Your task to perform on an android device: set the stopwatch Image 0: 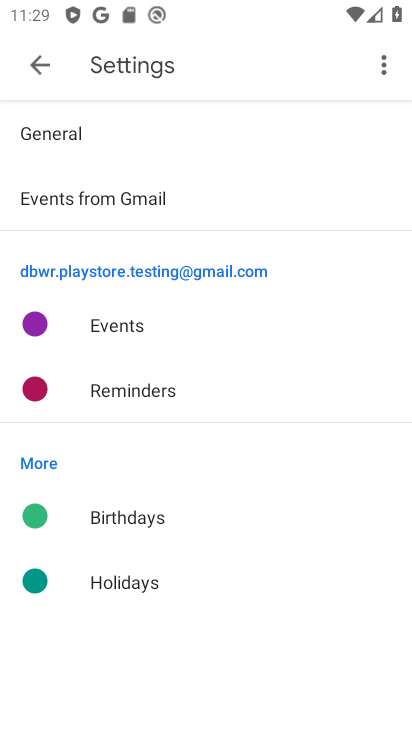
Step 0: press back button
Your task to perform on an android device: set the stopwatch Image 1: 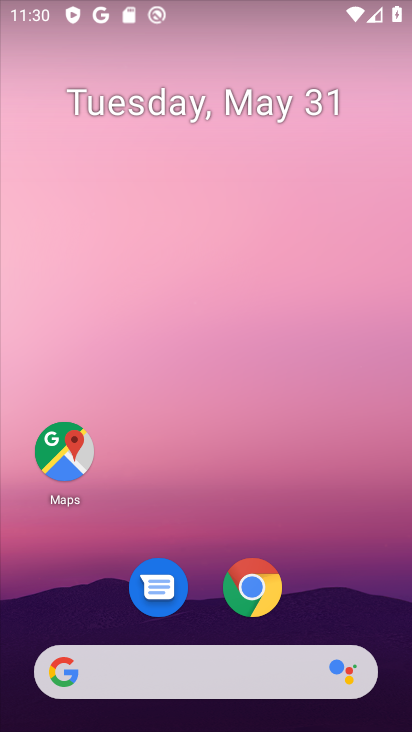
Step 1: drag from (341, 592) to (195, 191)
Your task to perform on an android device: set the stopwatch Image 2: 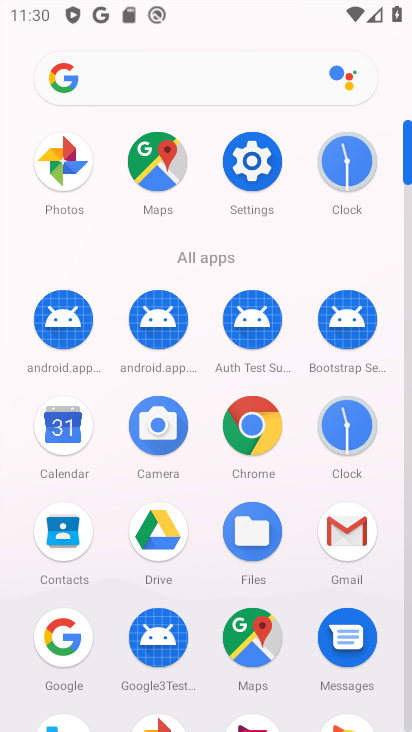
Step 2: click (347, 159)
Your task to perform on an android device: set the stopwatch Image 3: 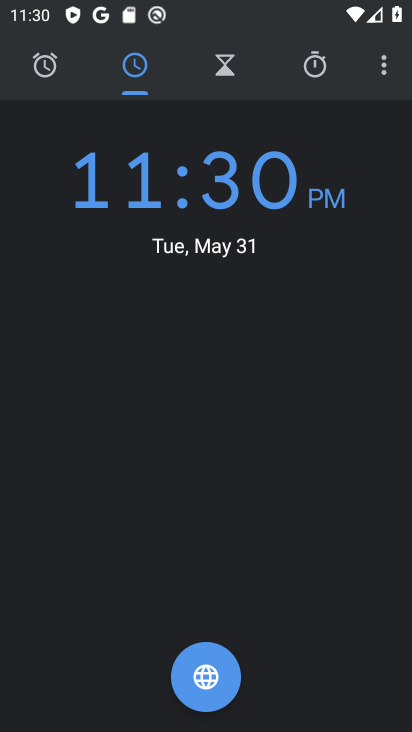
Step 3: click (316, 67)
Your task to perform on an android device: set the stopwatch Image 4: 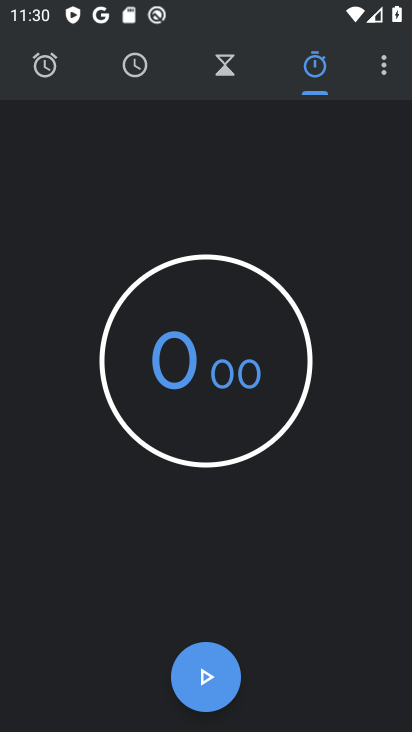
Step 4: click (204, 674)
Your task to perform on an android device: set the stopwatch Image 5: 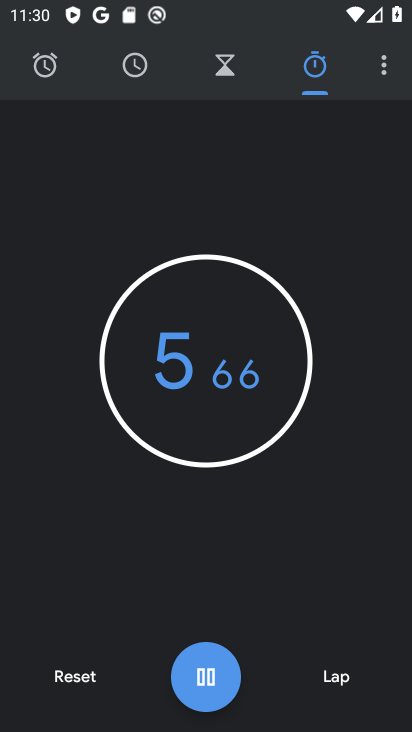
Step 5: click (204, 672)
Your task to perform on an android device: set the stopwatch Image 6: 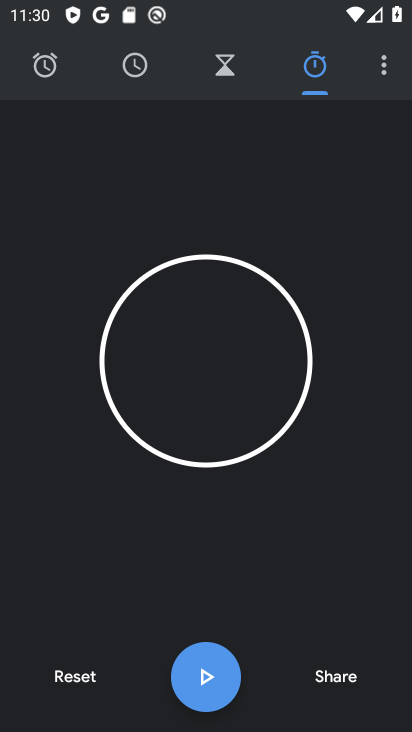
Step 6: task complete